Your task to perform on an android device: change timer sound Image 0: 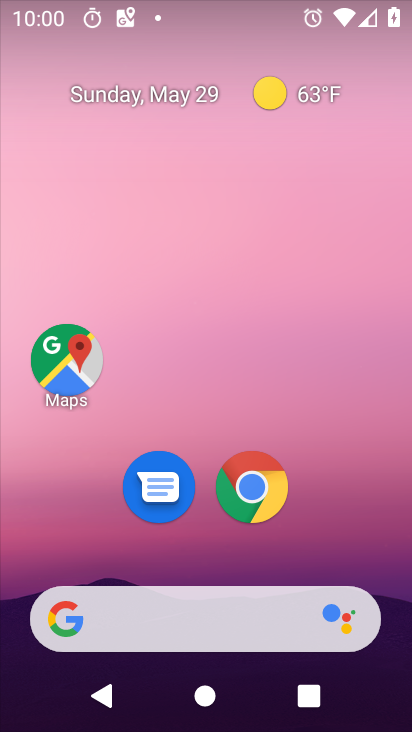
Step 0: drag from (184, 581) to (149, 84)
Your task to perform on an android device: change timer sound Image 1: 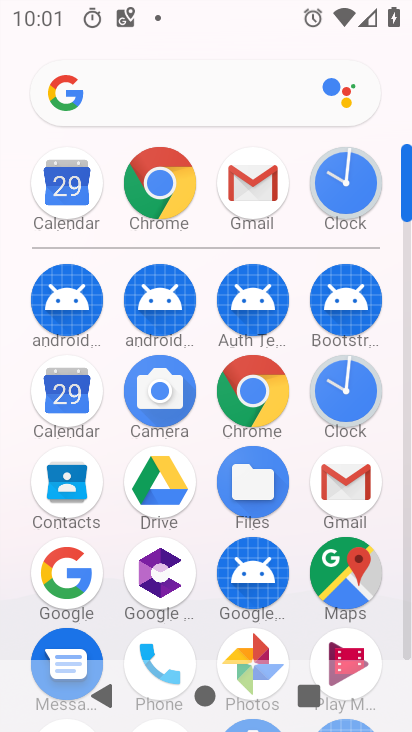
Step 1: click (359, 192)
Your task to perform on an android device: change timer sound Image 2: 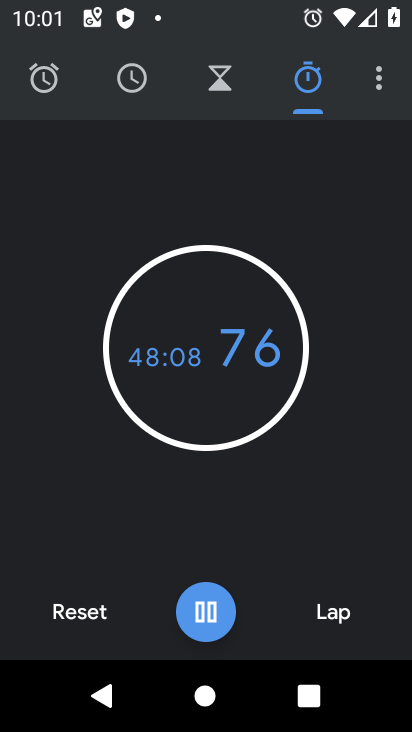
Step 2: click (379, 73)
Your task to perform on an android device: change timer sound Image 3: 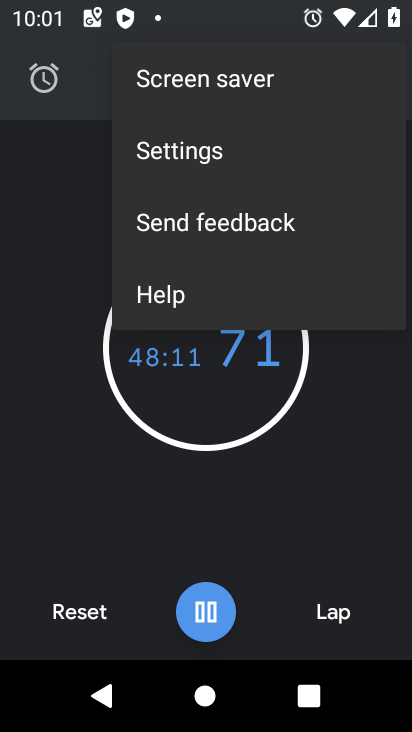
Step 3: click (218, 157)
Your task to perform on an android device: change timer sound Image 4: 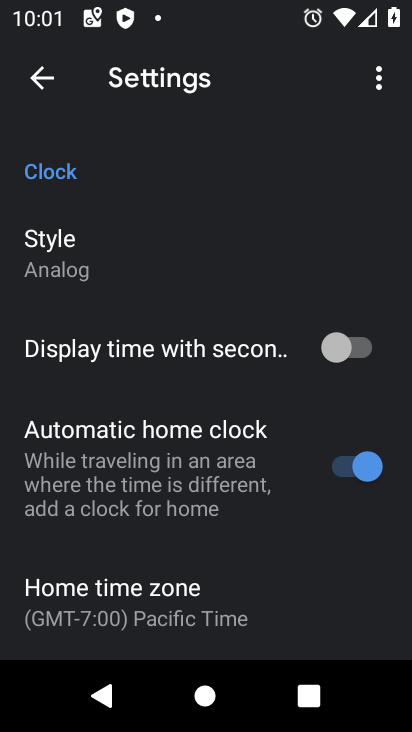
Step 4: drag from (171, 475) to (234, 147)
Your task to perform on an android device: change timer sound Image 5: 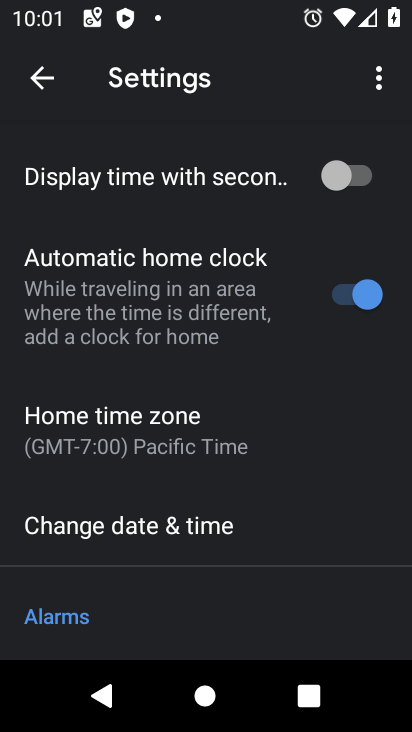
Step 5: drag from (198, 433) to (284, 135)
Your task to perform on an android device: change timer sound Image 6: 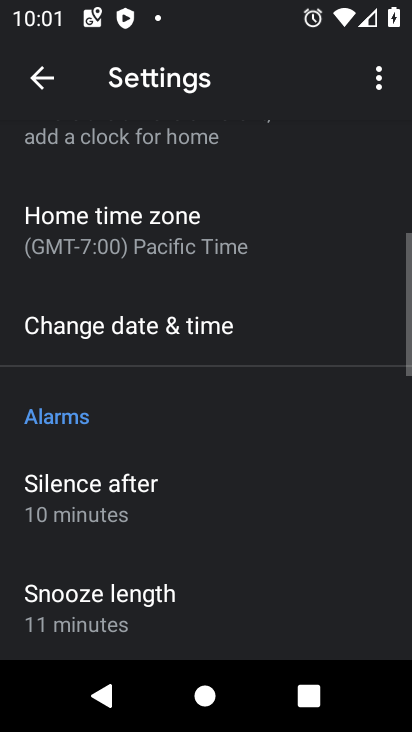
Step 6: drag from (228, 388) to (260, 123)
Your task to perform on an android device: change timer sound Image 7: 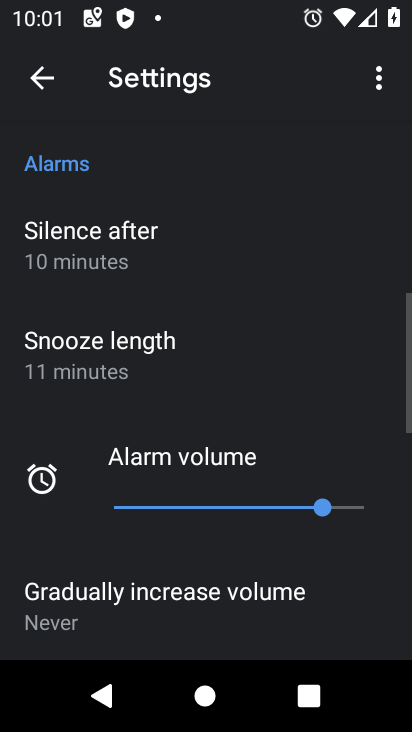
Step 7: drag from (211, 387) to (223, 202)
Your task to perform on an android device: change timer sound Image 8: 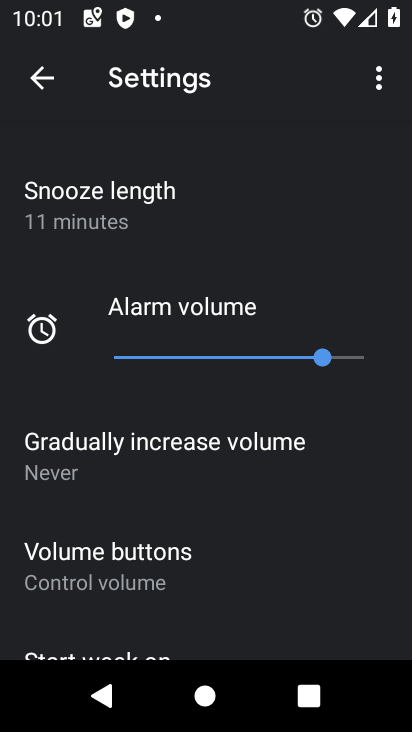
Step 8: drag from (157, 507) to (265, 143)
Your task to perform on an android device: change timer sound Image 9: 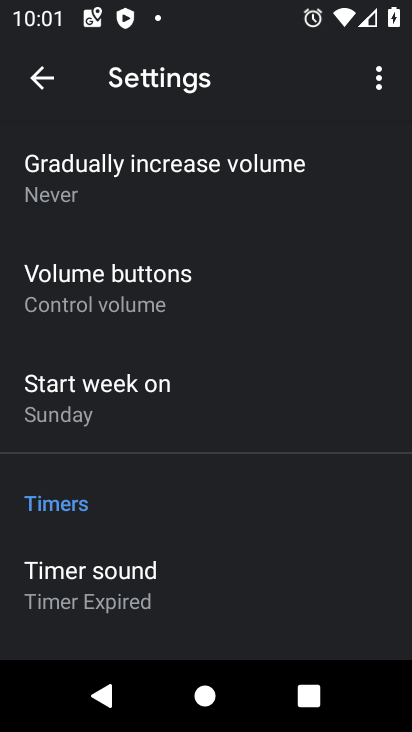
Step 9: click (127, 574)
Your task to perform on an android device: change timer sound Image 10: 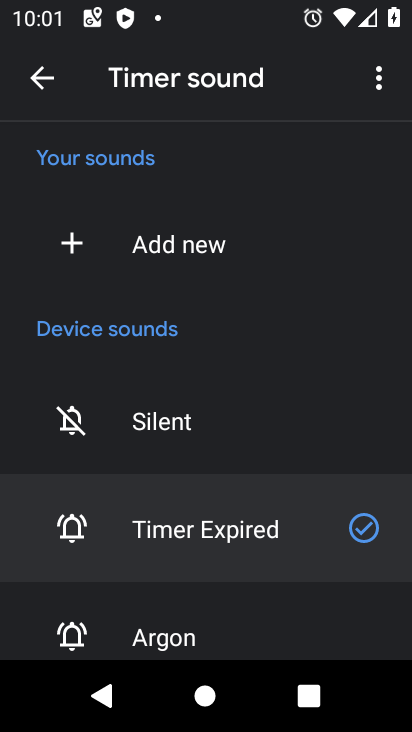
Step 10: click (158, 624)
Your task to perform on an android device: change timer sound Image 11: 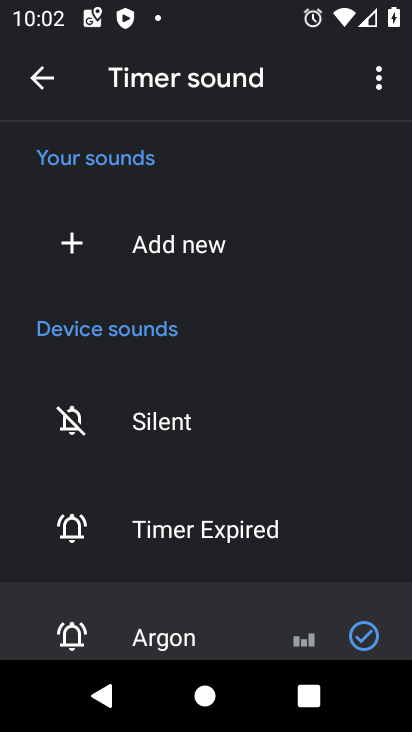
Step 11: task complete